Your task to perform on an android device: What's the weather going to be tomorrow? Image 0: 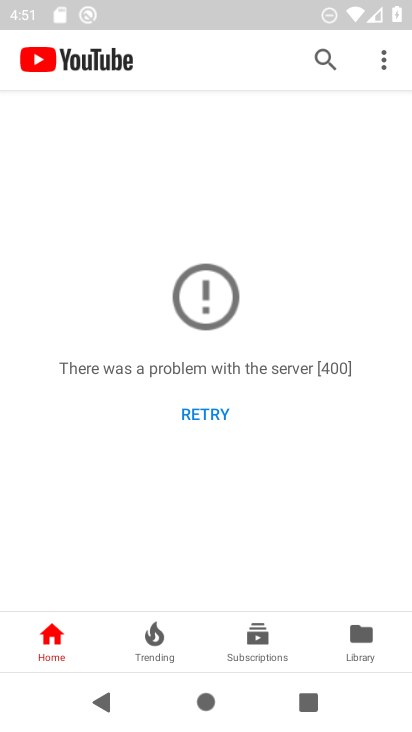
Step 0: press home button
Your task to perform on an android device: What's the weather going to be tomorrow? Image 1: 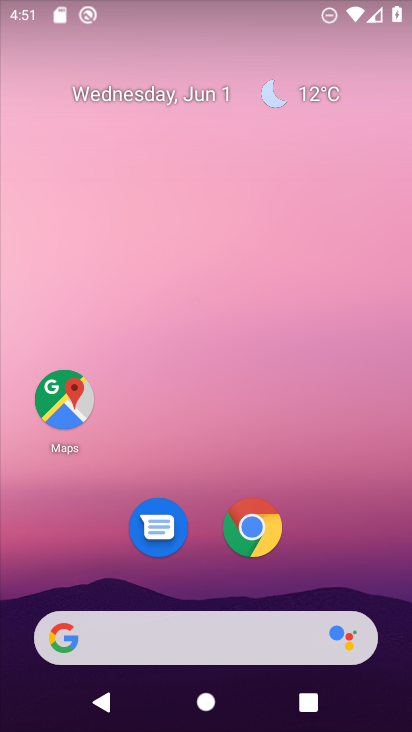
Step 1: click (325, 97)
Your task to perform on an android device: What's the weather going to be tomorrow? Image 2: 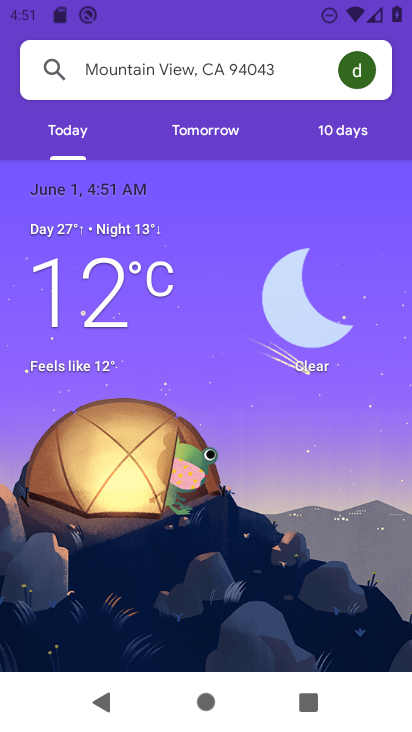
Step 2: click (219, 132)
Your task to perform on an android device: What's the weather going to be tomorrow? Image 3: 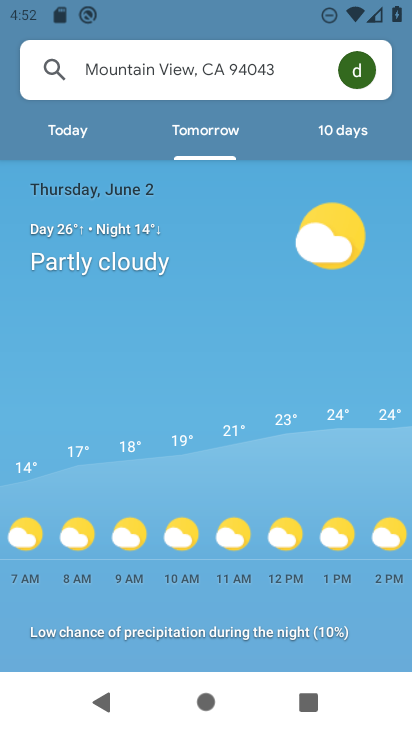
Step 3: task complete